Your task to perform on an android device: Open Google Chrome Image 0: 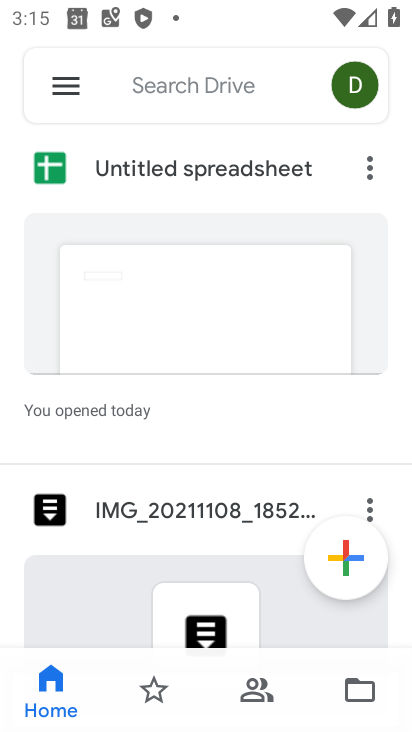
Step 0: press home button
Your task to perform on an android device: Open Google Chrome Image 1: 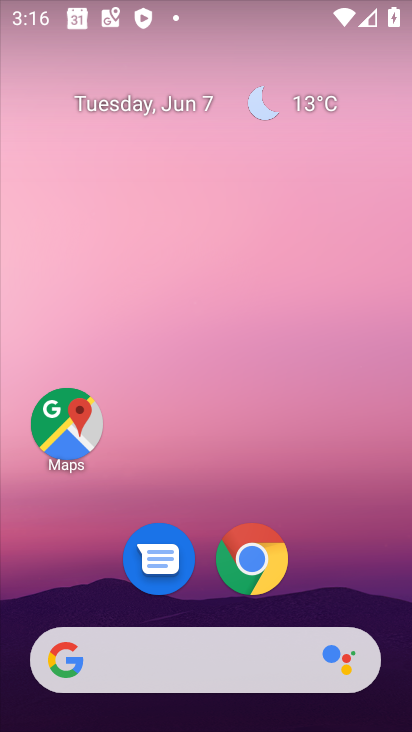
Step 1: click (252, 560)
Your task to perform on an android device: Open Google Chrome Image 2: 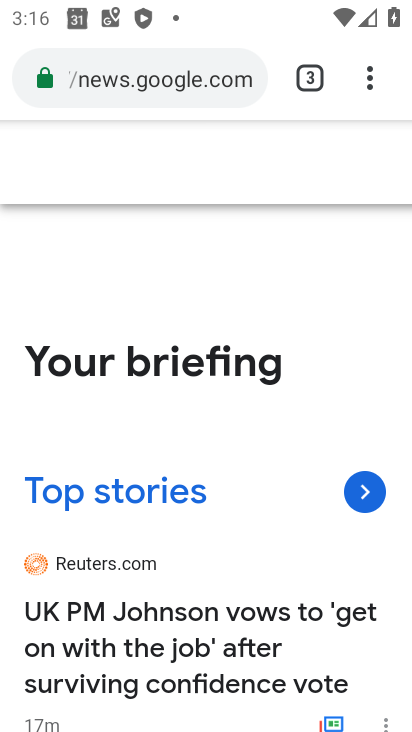
Step 2: task complete